Your task to perform on an android device: toggle location history Image 0: 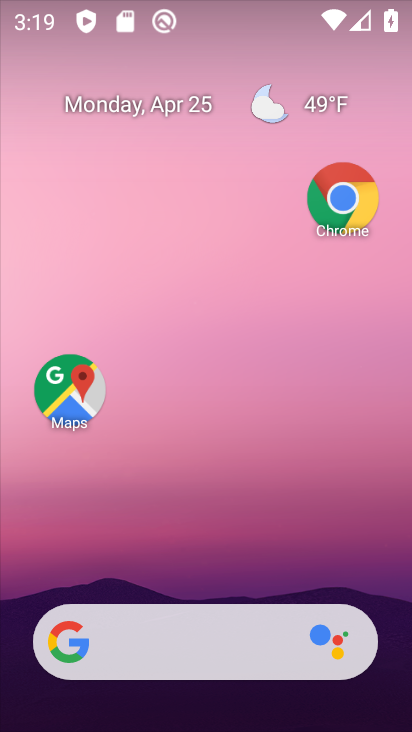
Step 0: drag from (169, 639) to (285, 100)
Your task to perform on an android device: toggle location history Image 1: 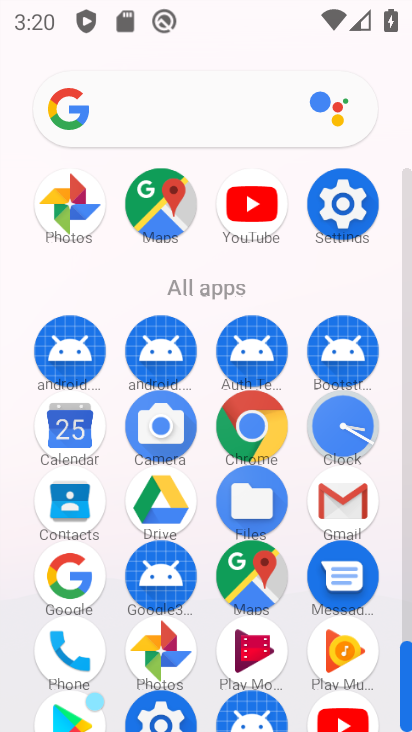
Step 1: click (329, 209)
Your task to perform on an android device: toggle location history Image 2: 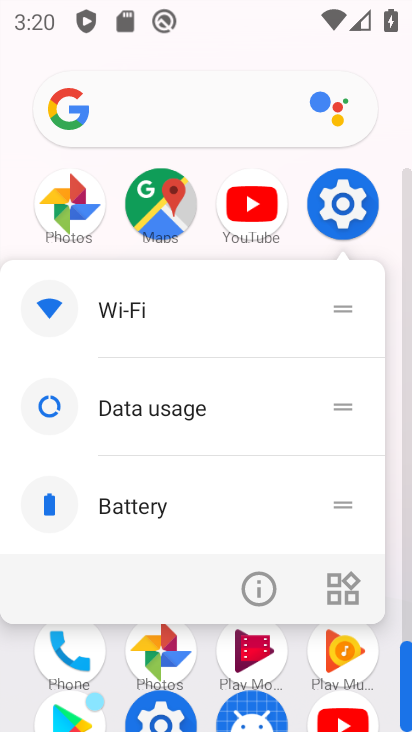
Step 2: click (345, 213)
Your task to perform on an android device: toggle location history Image 3: 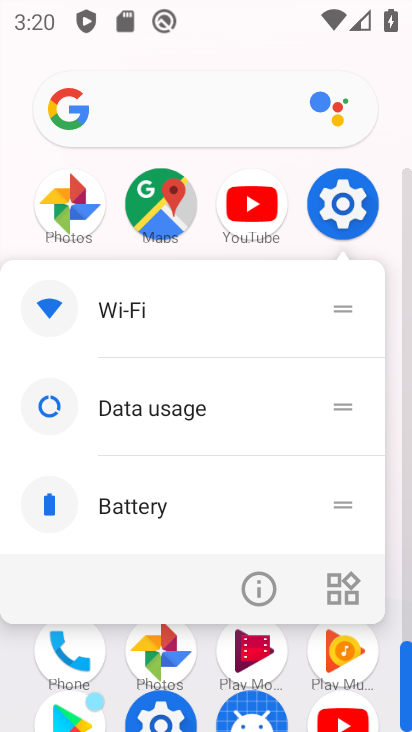
Step 3: click (341, 201)
Your task to perform on an android device: toggle location history Image 4: 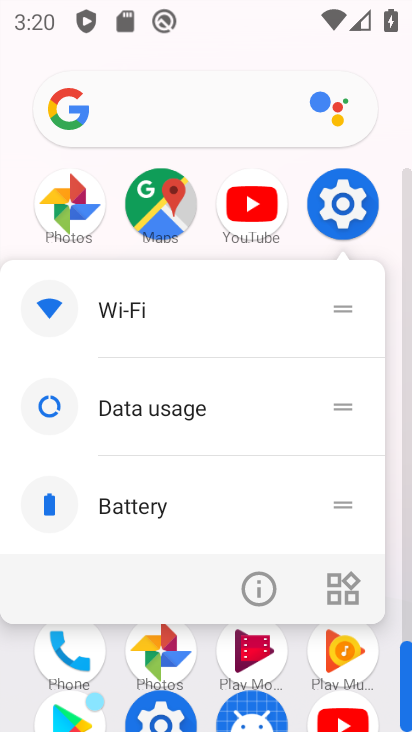
Step 4: click (334, 214)
Your task to perform on an android device: toggle location history Image 5: 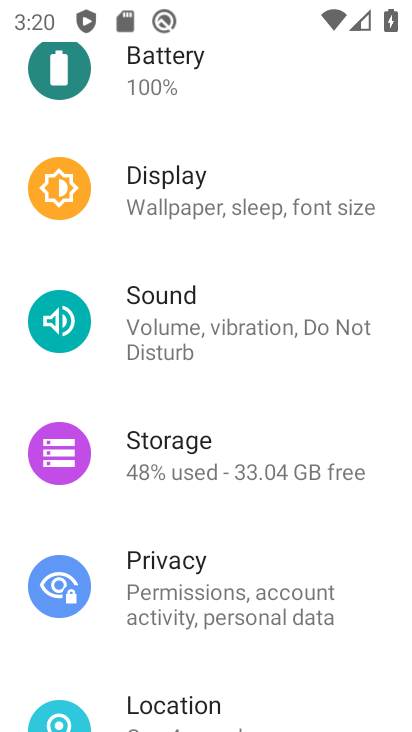
Step 5: click (195, 703)
Your task to perform on an android device: toggle location history Image 6: 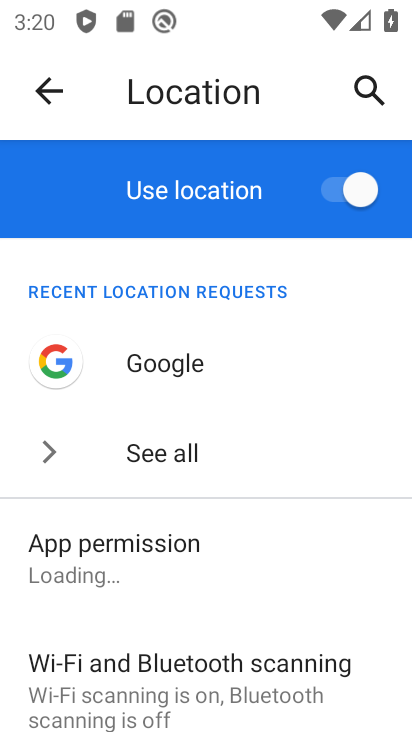
Step 6: drag from (213, 615) to (362, 230)
Your task to perform on an android device: toggle location history Image 7: 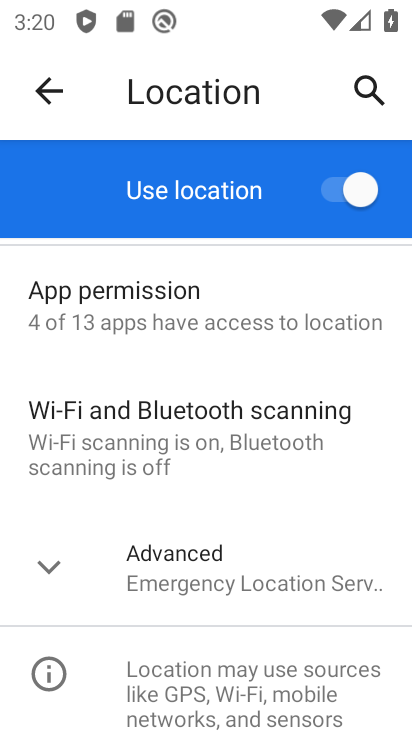
Step 7: click (147, 564)
Your task to perform on an android device: toggle location history Image 8: 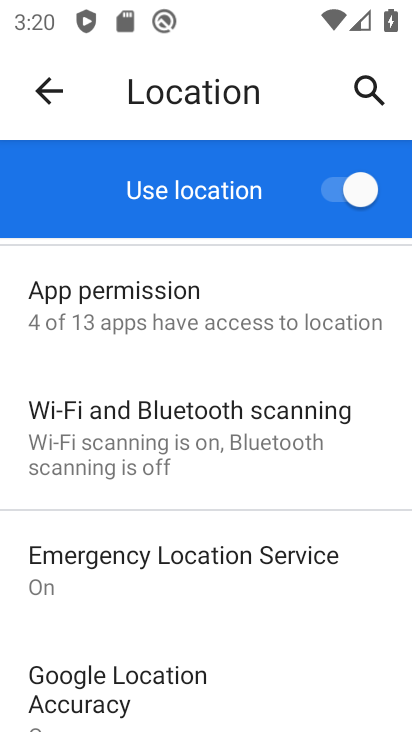
Step 8: drag from (191, 633) to (369, 78)
Your task to perform on an android device: toggle location history Image 9: 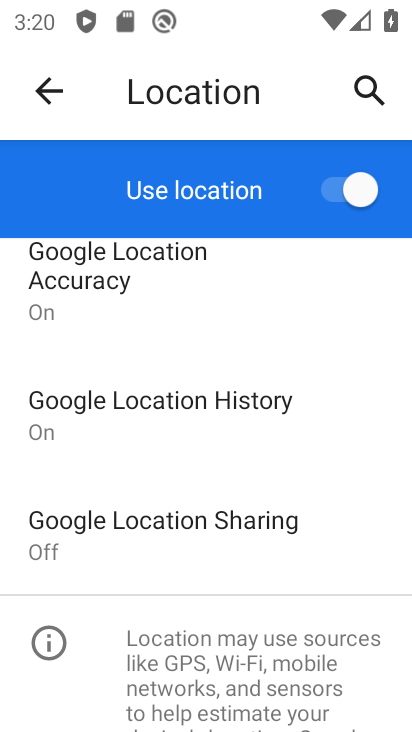
Step 9: click (222, 397)
Your task to perform on an android device: toggle location history Image 10: 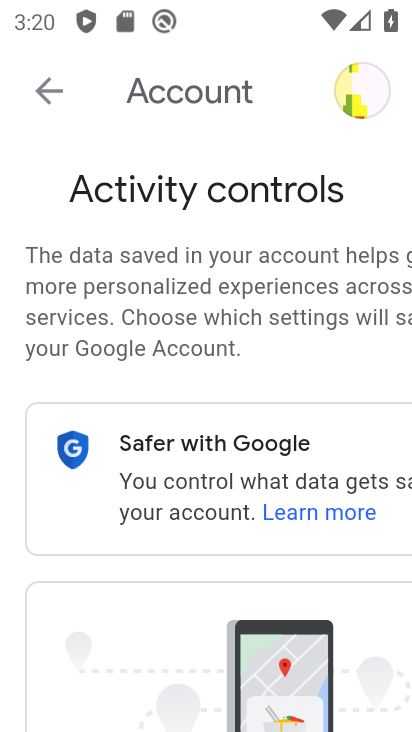
Step 10: drag from (139, 669) to (323, 89)
Your task to perform on an android device: toggle location history Image 11: 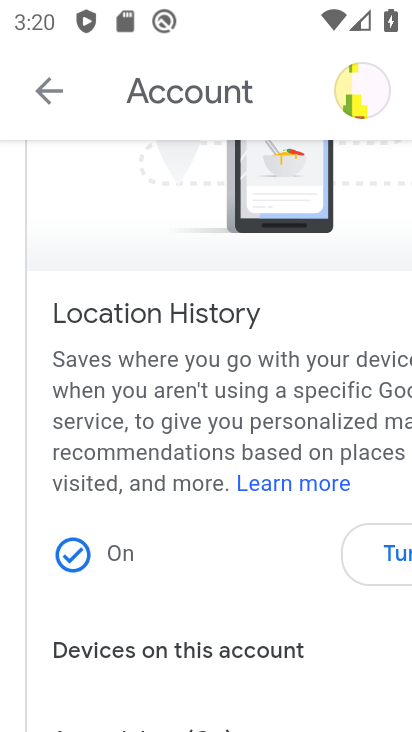
Step 11: click (388, 555)
Your task to perform on an android device: toggle location history Image 12: 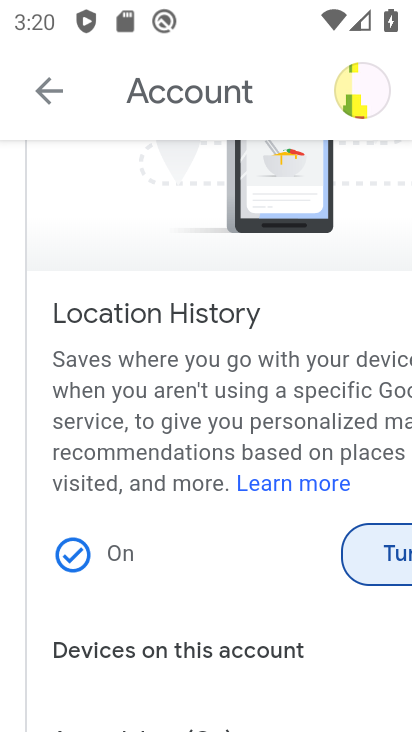
Step 12: click (394, 559)
Your task to perform on an android device: toggle location history Image 13: 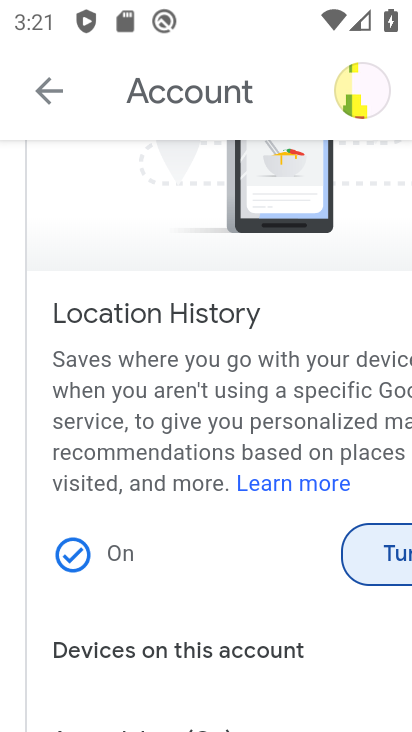
Step 13: click (381, 559)
Your task to perform on an android device: toggle location history Image 14: 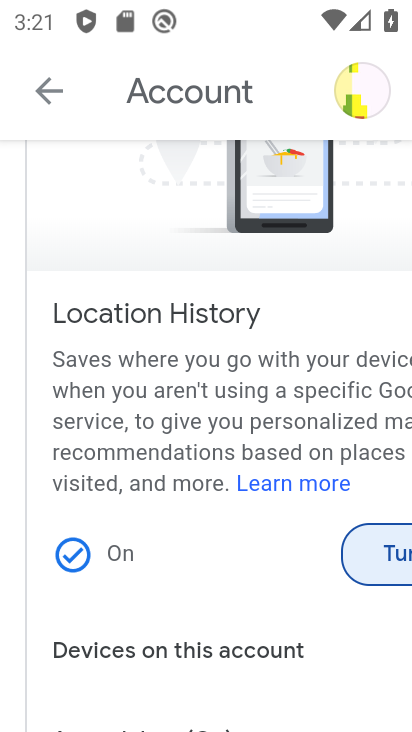
Step 14: click (389, 541)
Your task to perform on an android device: toggle location history Image 15: 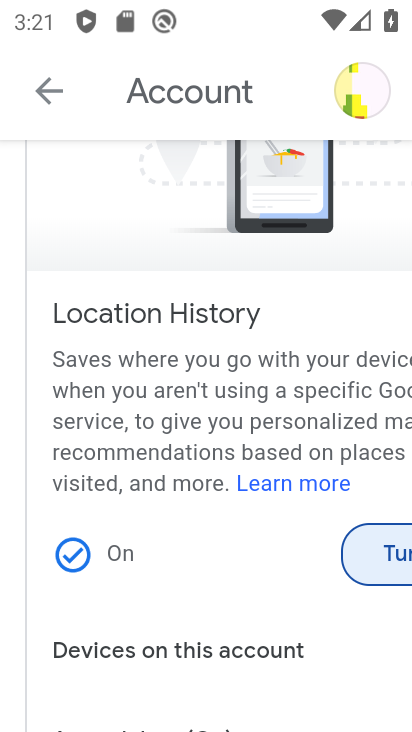
Step 15: click (396, 557)
Your task to perform on an android device: toggle location history Image 16: 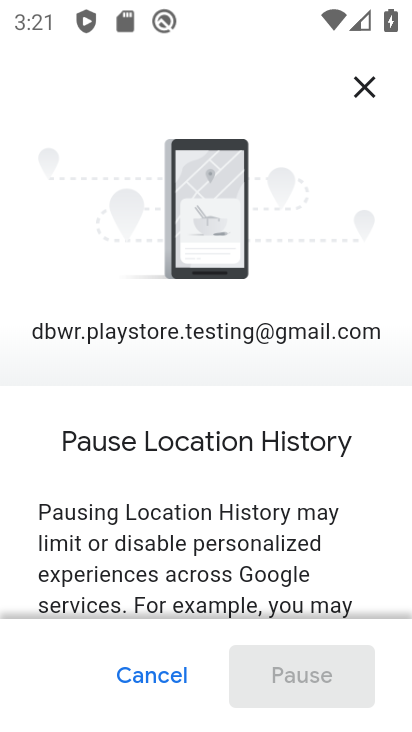
Step 16: drag from (193, 569) to (320, 134)
Your task to perform on an android device: toggle location history Image 17: 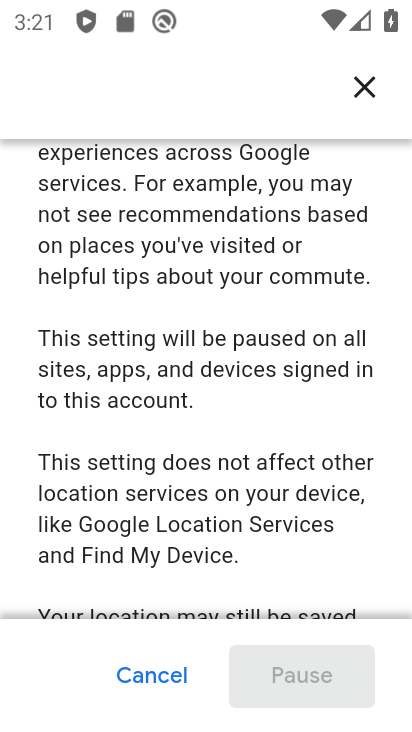
Step 17: drag from (210, 543) to (395, 25)
Your task to perform on an android device: toggle location history Image 18: 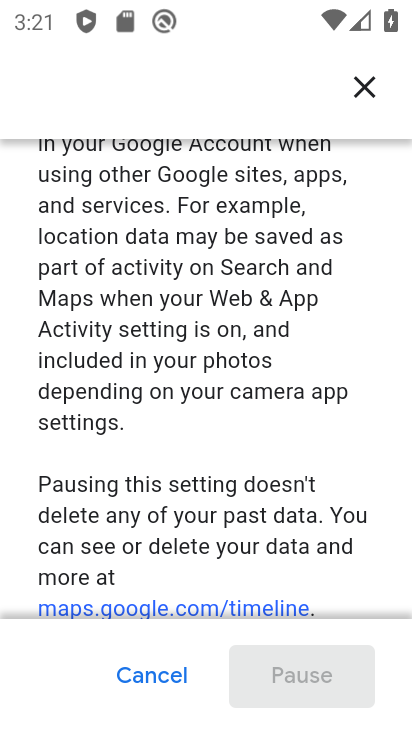
Step 18: drag from (229, 532) to (361, 121)
Your task to perform on an android device: toggle location history Image 19: 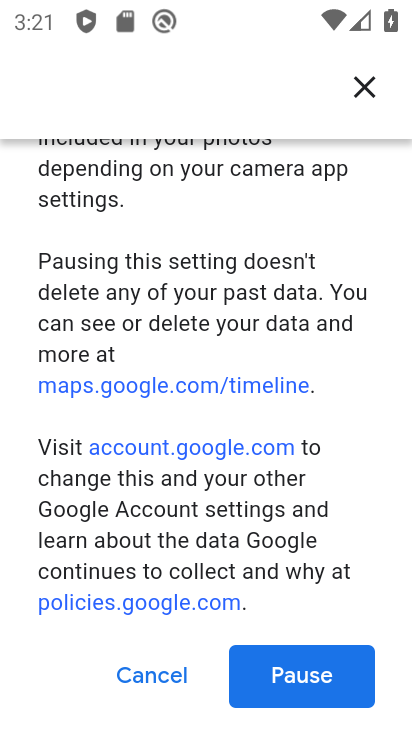
Step 19: click (326, 682)
Your task to perform on an android device: toggle location history Image 20: 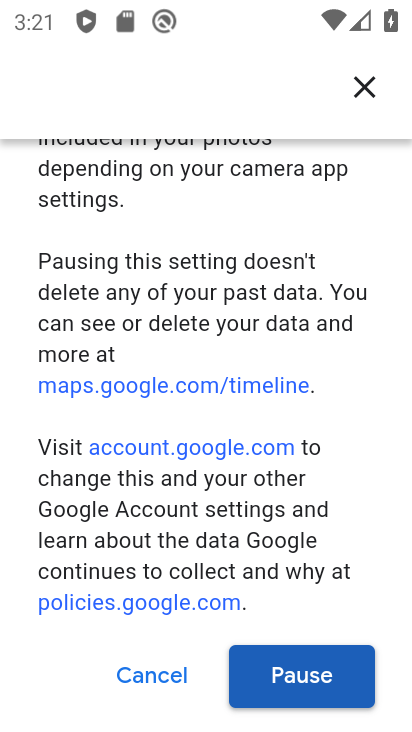
Step 20: click (304, 680)
Your task to perform on an android device: toggle location history Image 21: 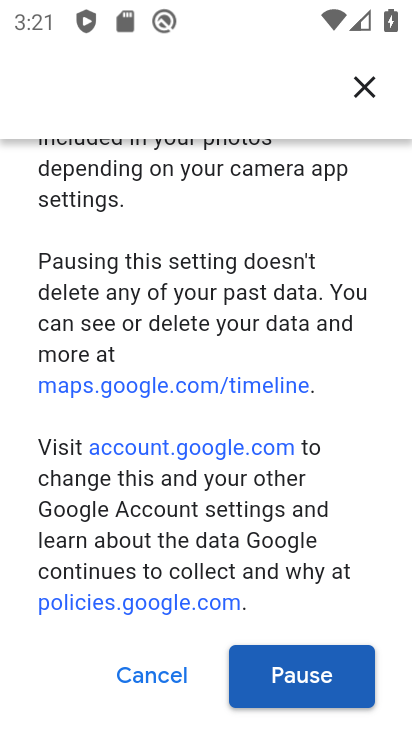
Step 21: click (297, 685)
Your task to perform on an android device: toggle location history Image 22: 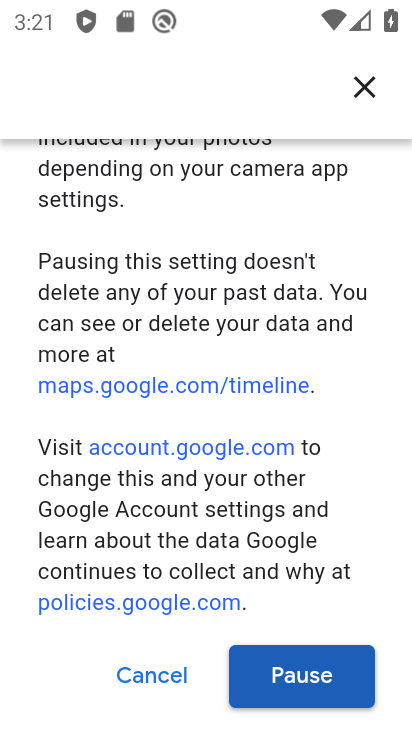
Step 22: click (307, 677)
Your task to perform on an android device: toggle location history Image 23: 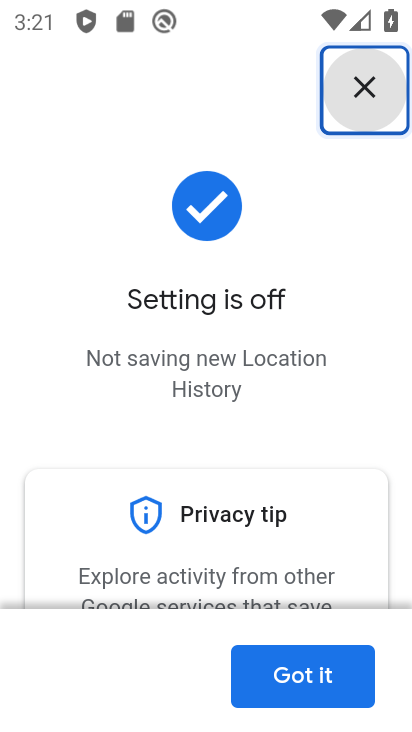
Step 23: task complete